Your task to perform on an android device: Add "dell xps" to the cart on walmart Image 0: 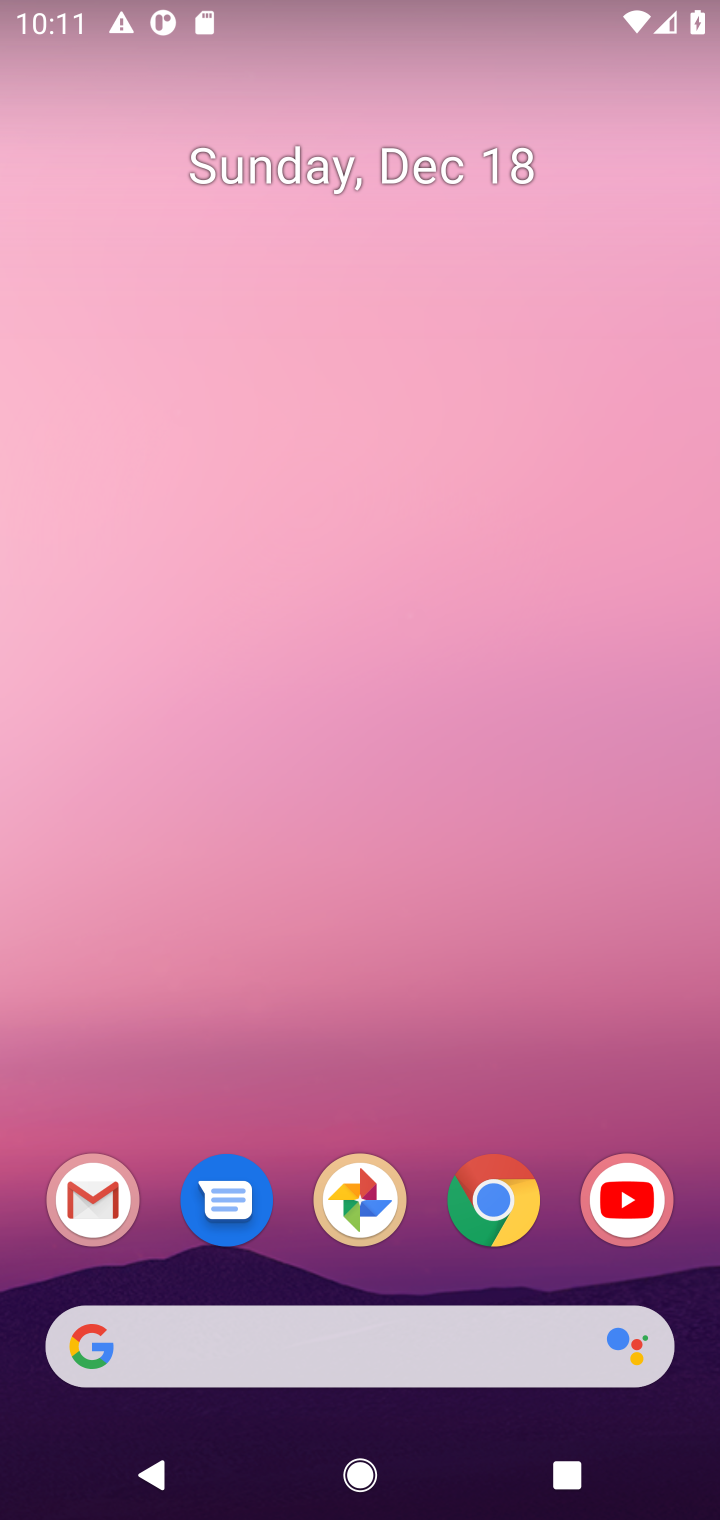
Step 0: click (490, 1205)
Your task to perform on an android device: Add "dell xps" to the cart on walmart Image 1: 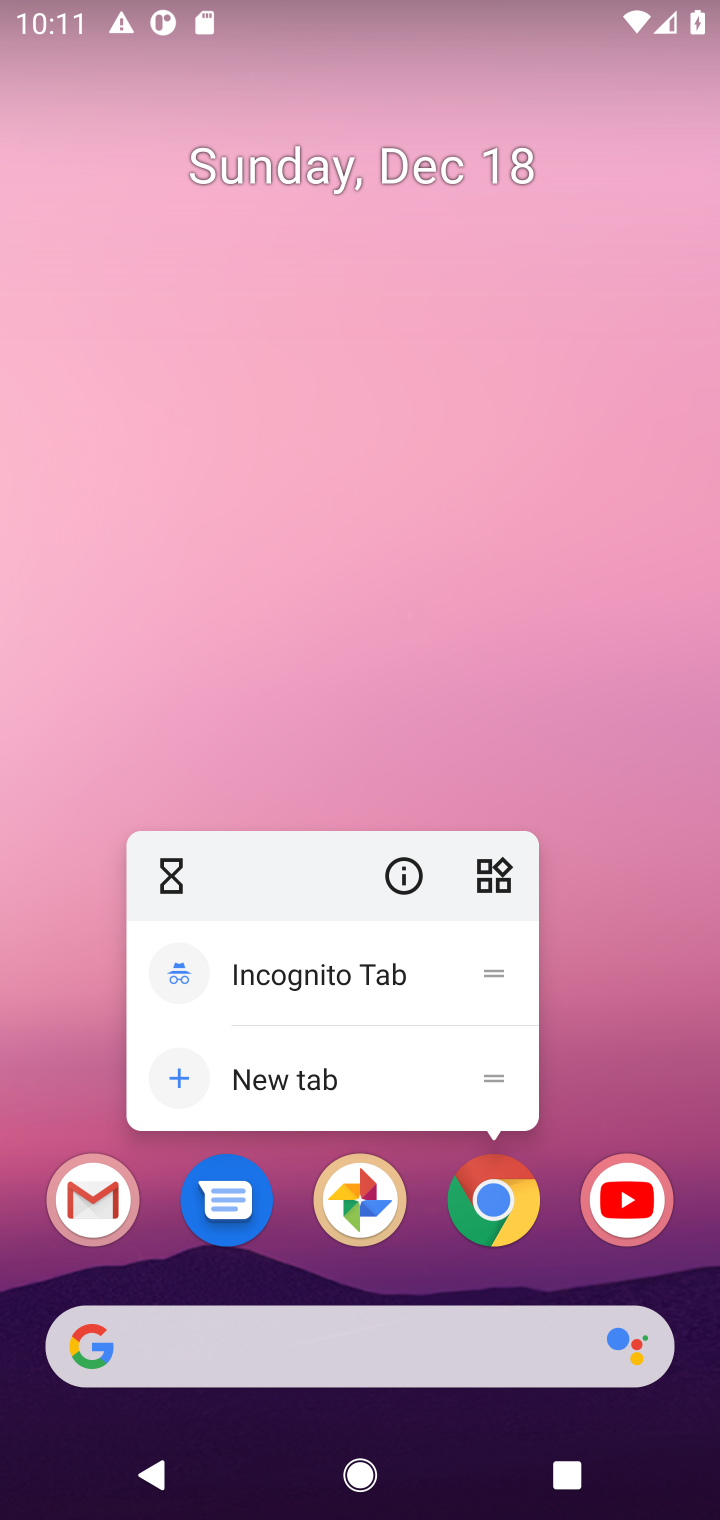
Step 1: click (490, 1205)
Your task to perform on an android device: Add "dell xps" to the cart on walmart Image 2: 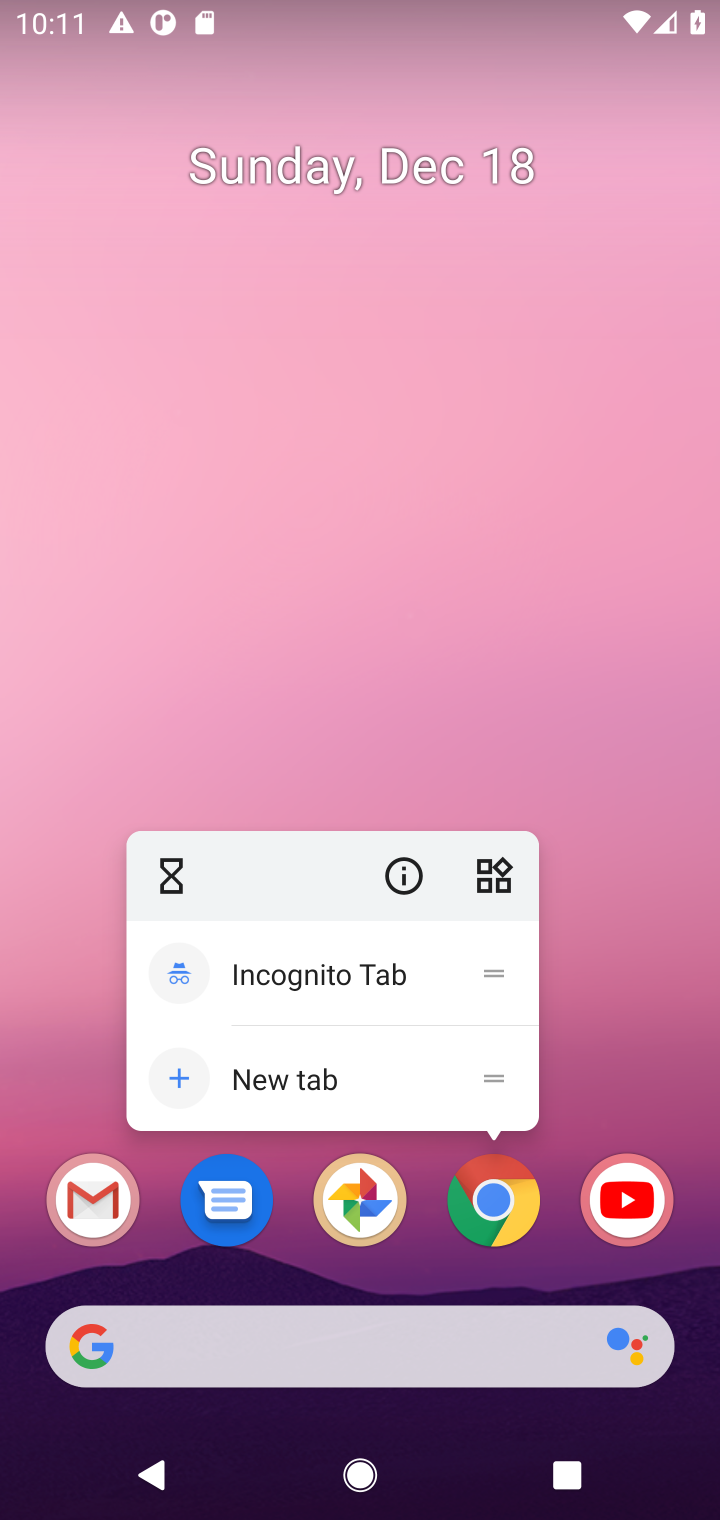
Step 2: click (490, 1205)
Your task to perform on an android device: Add "dell xps" to the cart on walmart Image 3: 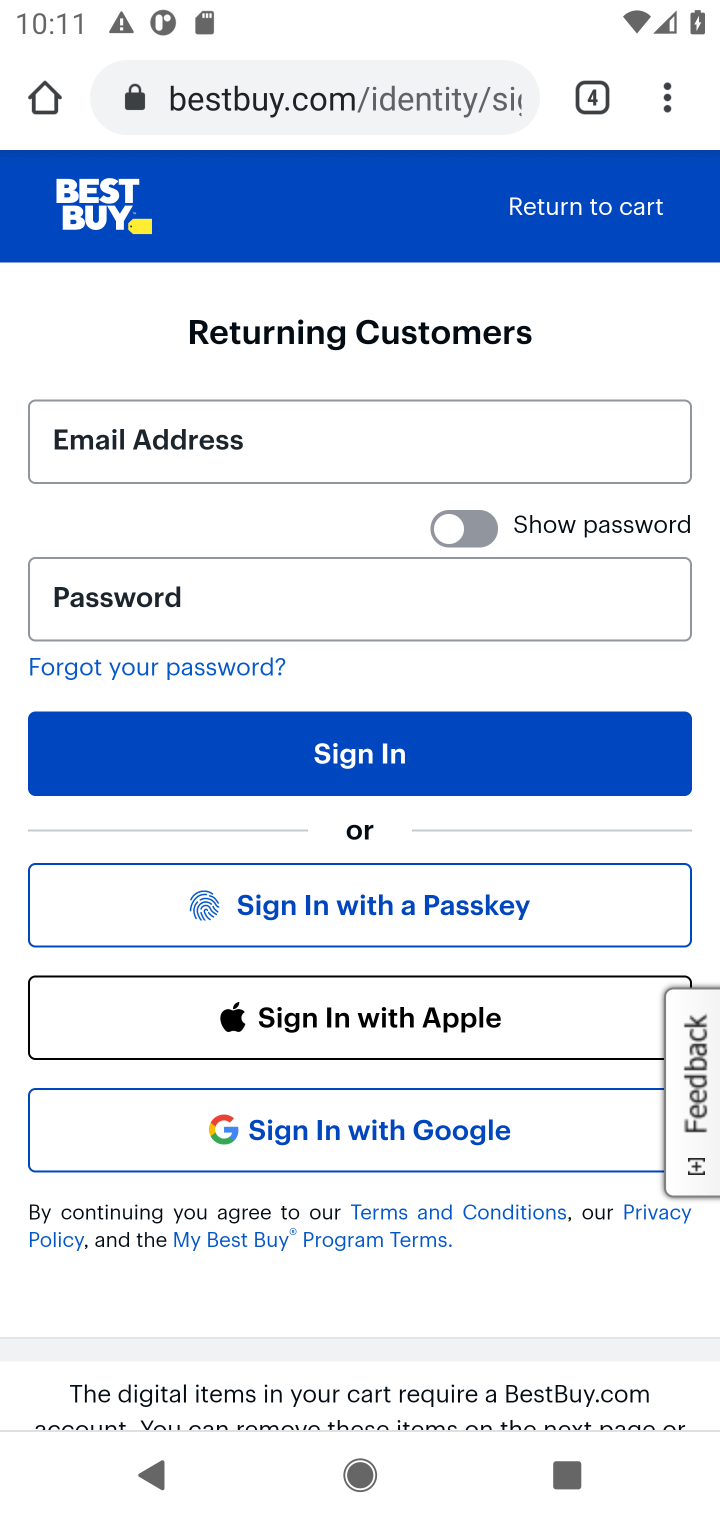
Step 3: click (298, 98)
Your task to perform on an android device: Add "dell xps" to the cart on walmart Image 4: 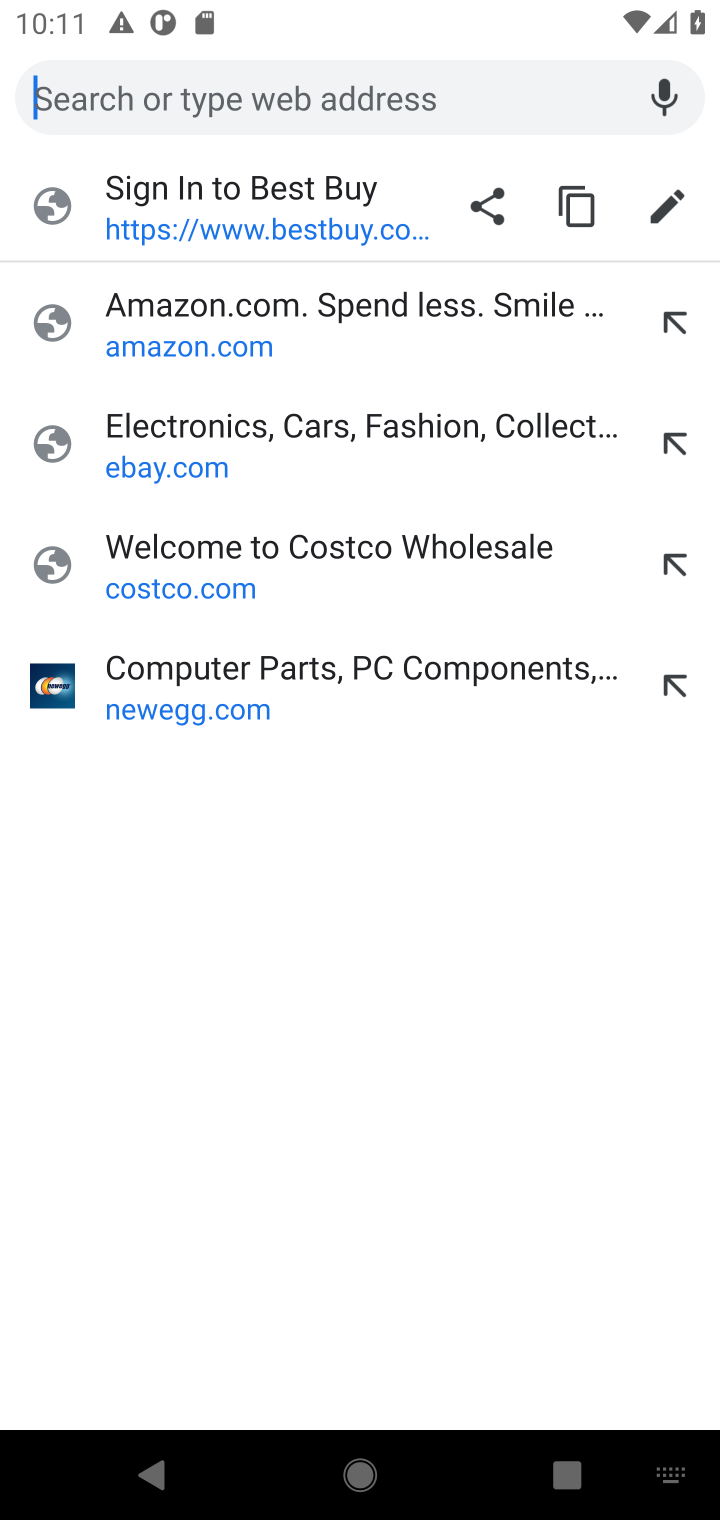
Step 4: type "walmart.com"
Your task to perform on an android device: Add "dell xps" to the cart on walmart Image 5: 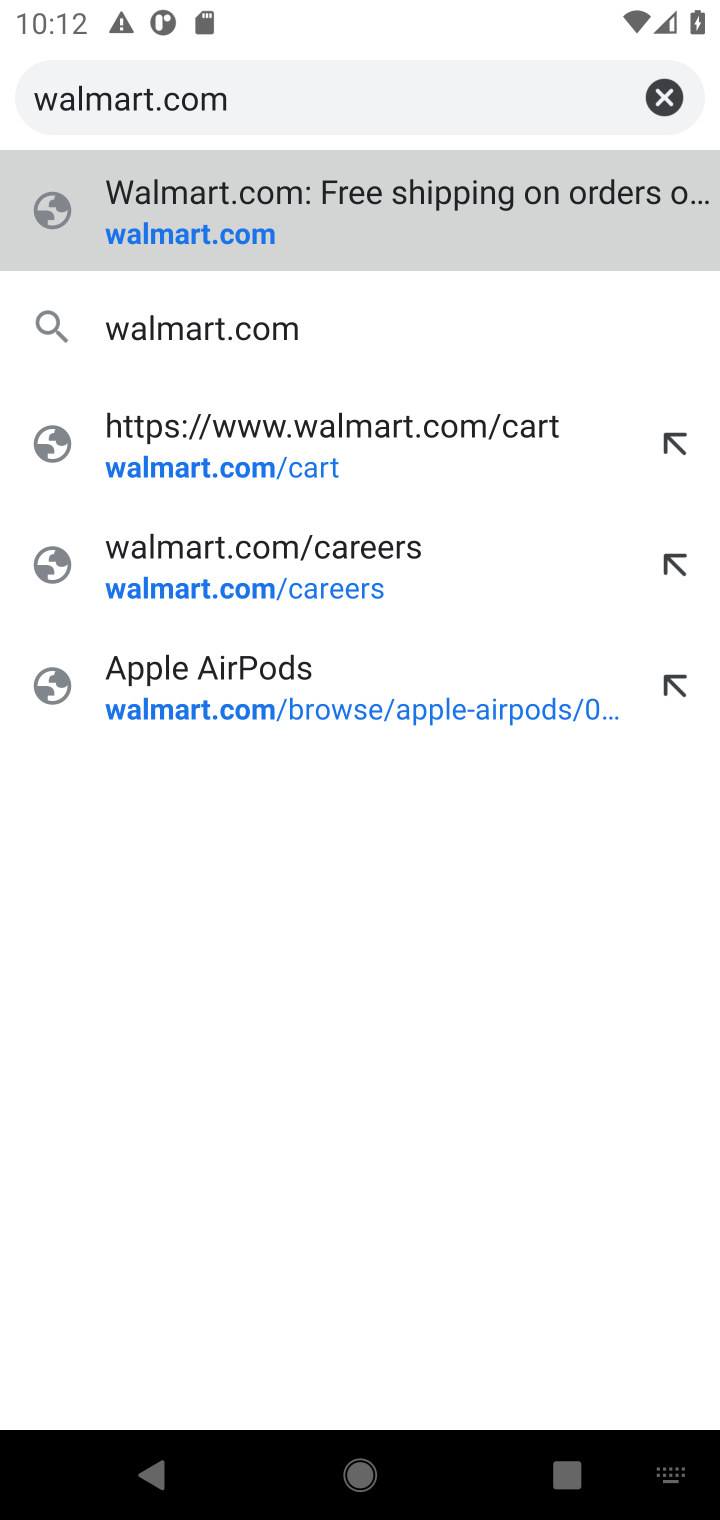
Step 5: click (167, 245)
Your task to perform on an android device: Add "dell xps" to the cart on walmart Image 6: 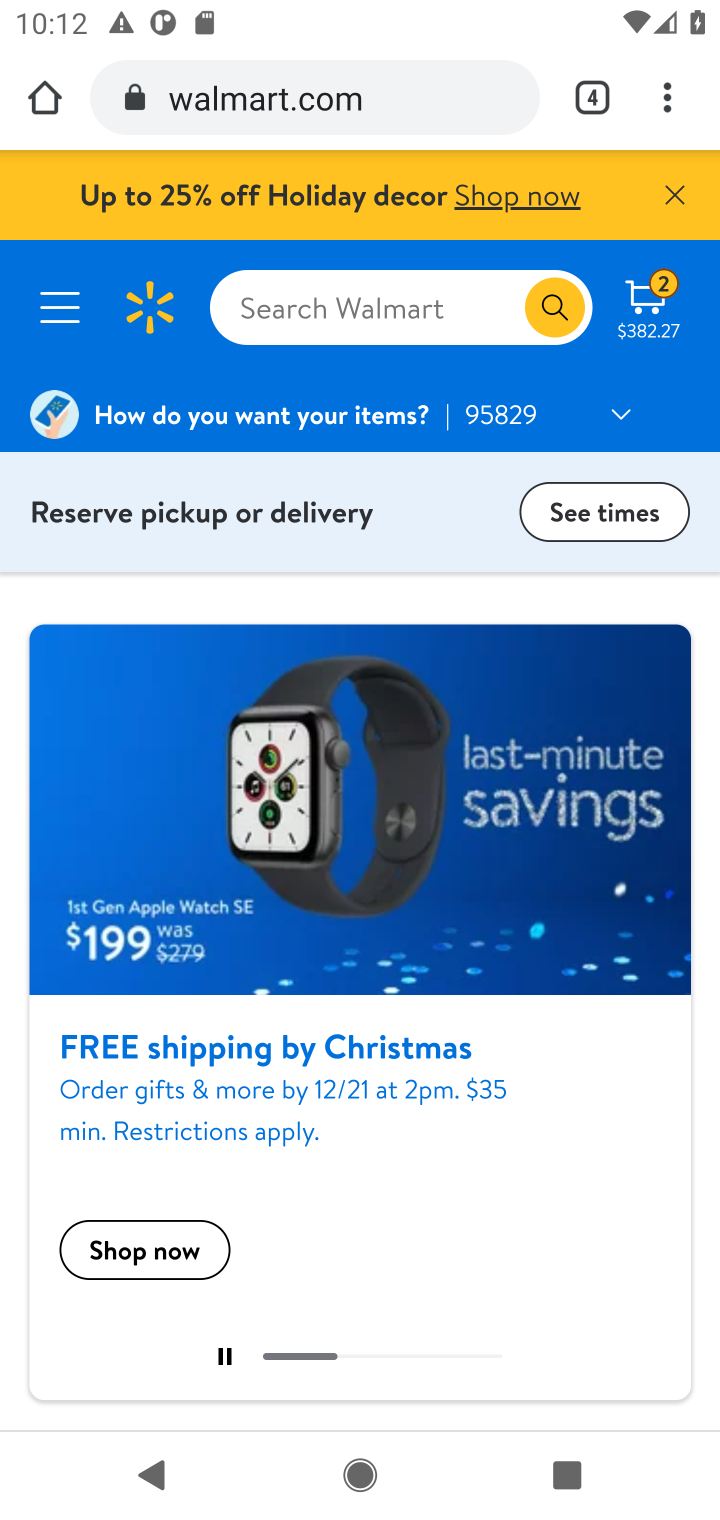
Step 6: click (292, 308)
Your task to perform on an android device: Add "dell xps" to the cart on walmart Image 7: 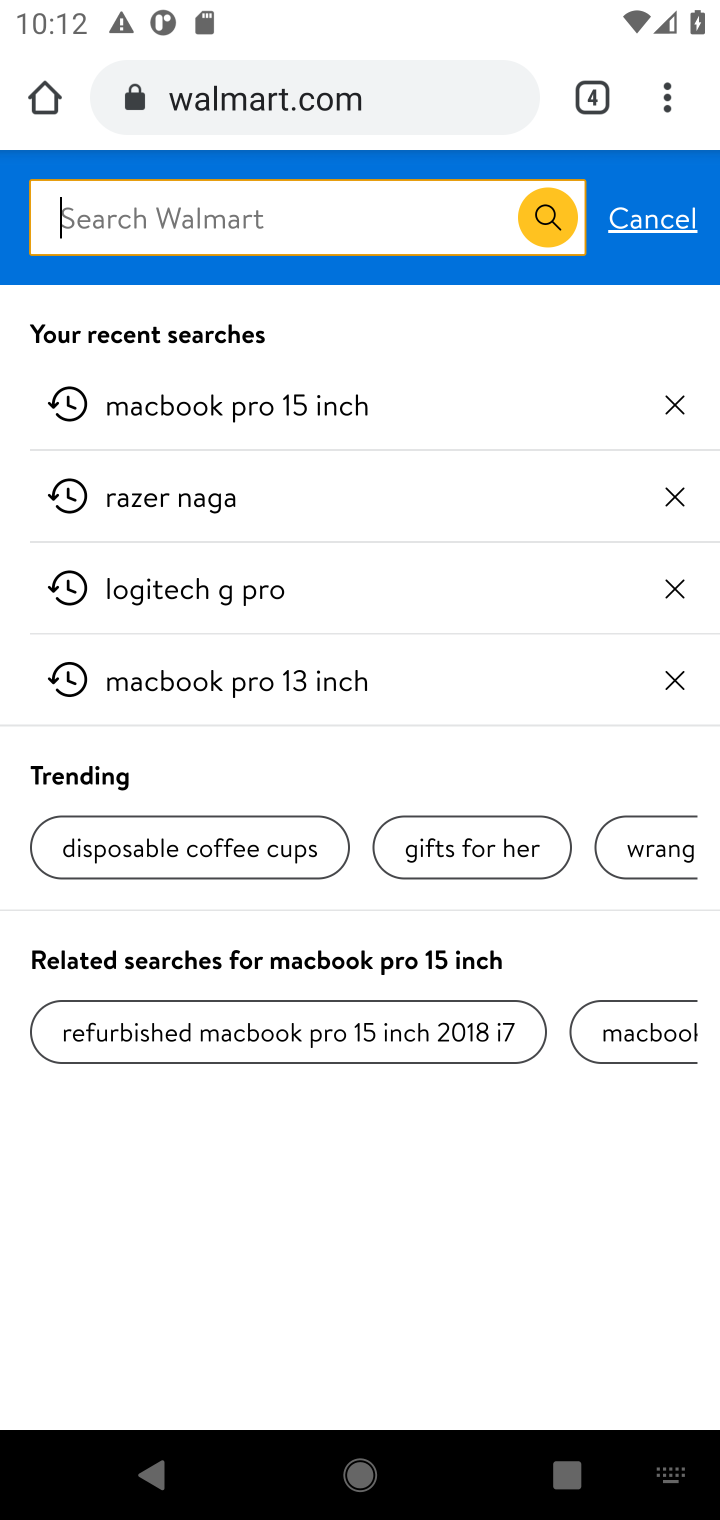
Step 7: type "dell xps"
Your task to perform on an android device: Add "dell xps" to the cart on walmart Image 8: 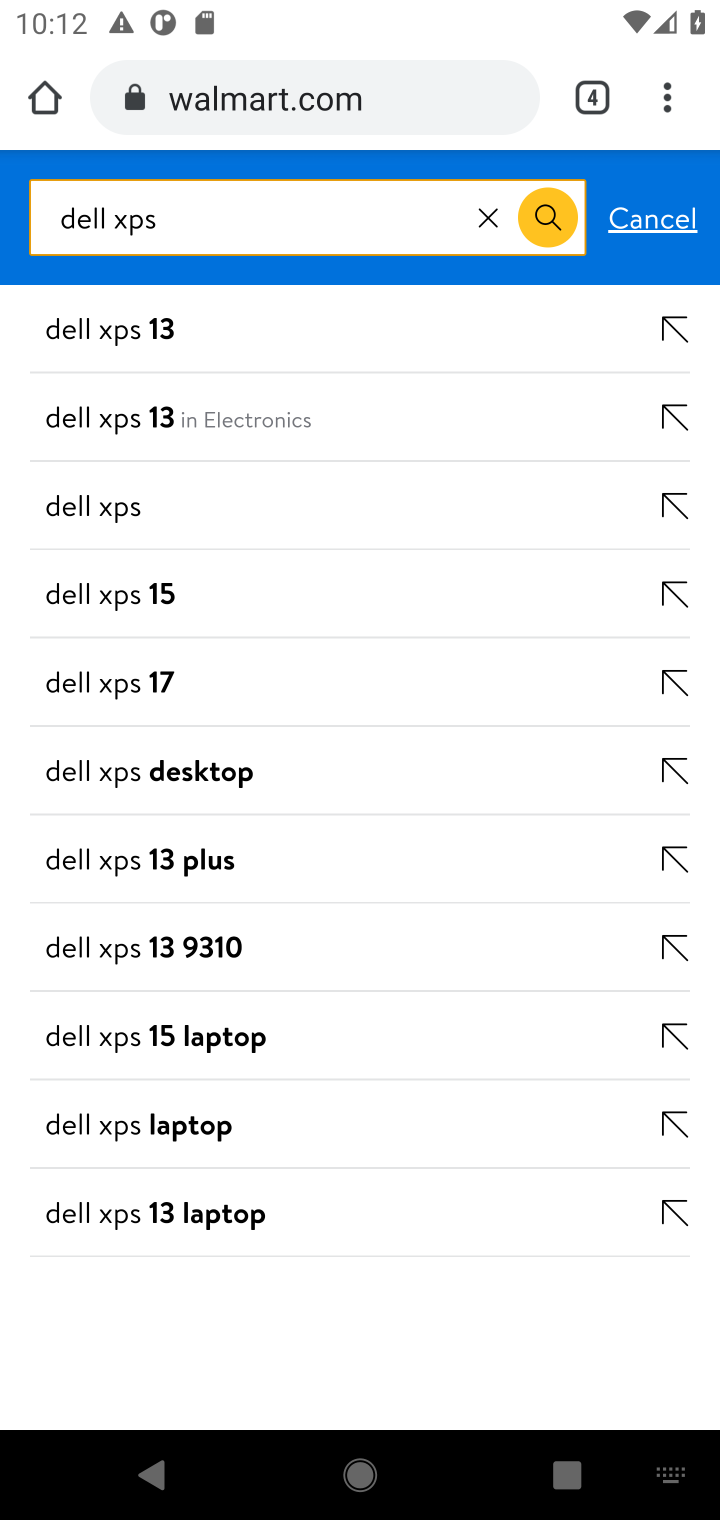
Step 8: click (115, 491)
Your task to perform on an android device: Add "dell xps" to the cart on walmart Image 9: 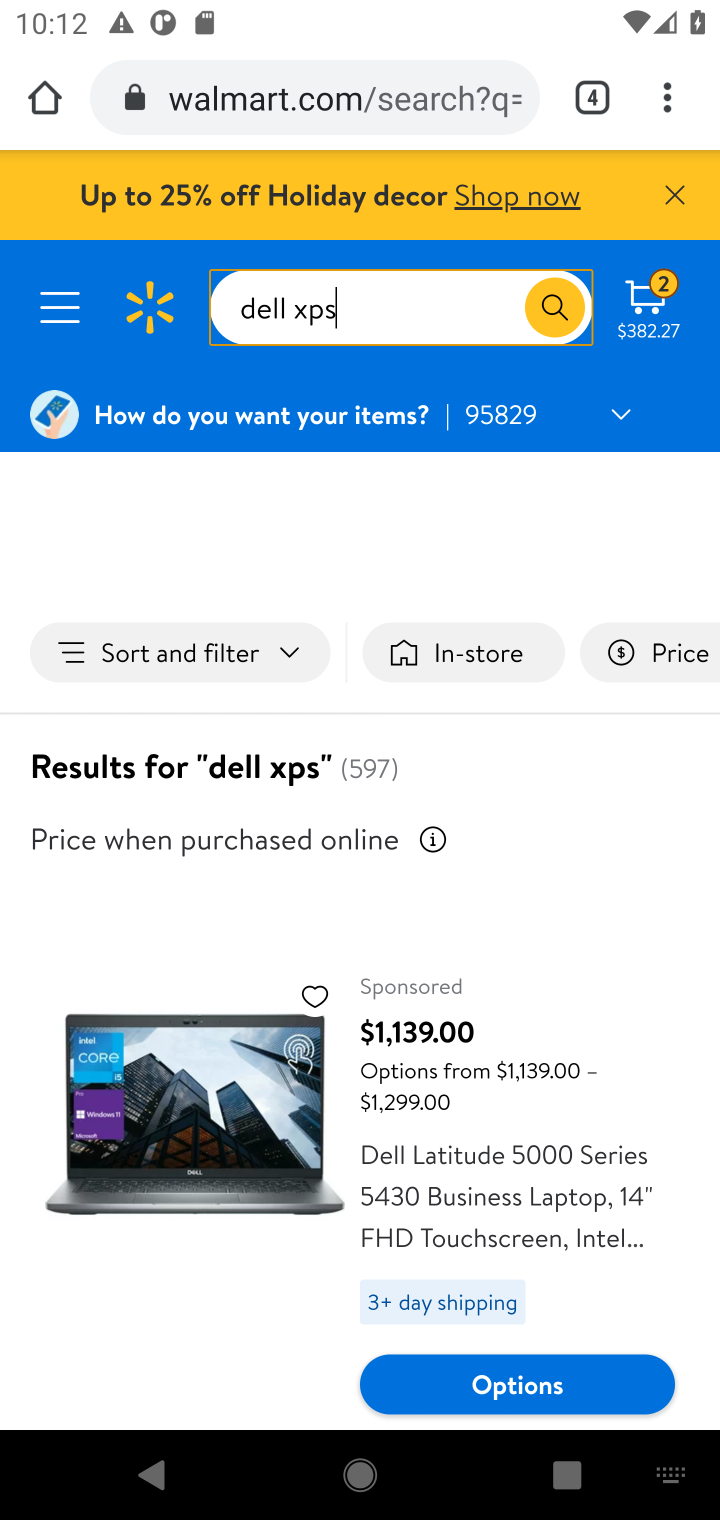
Step 9: drag from (483, 969) to (508, 598)
Your task to perform on an android device: Add "dell xps" to the cart on walmart Image 10: 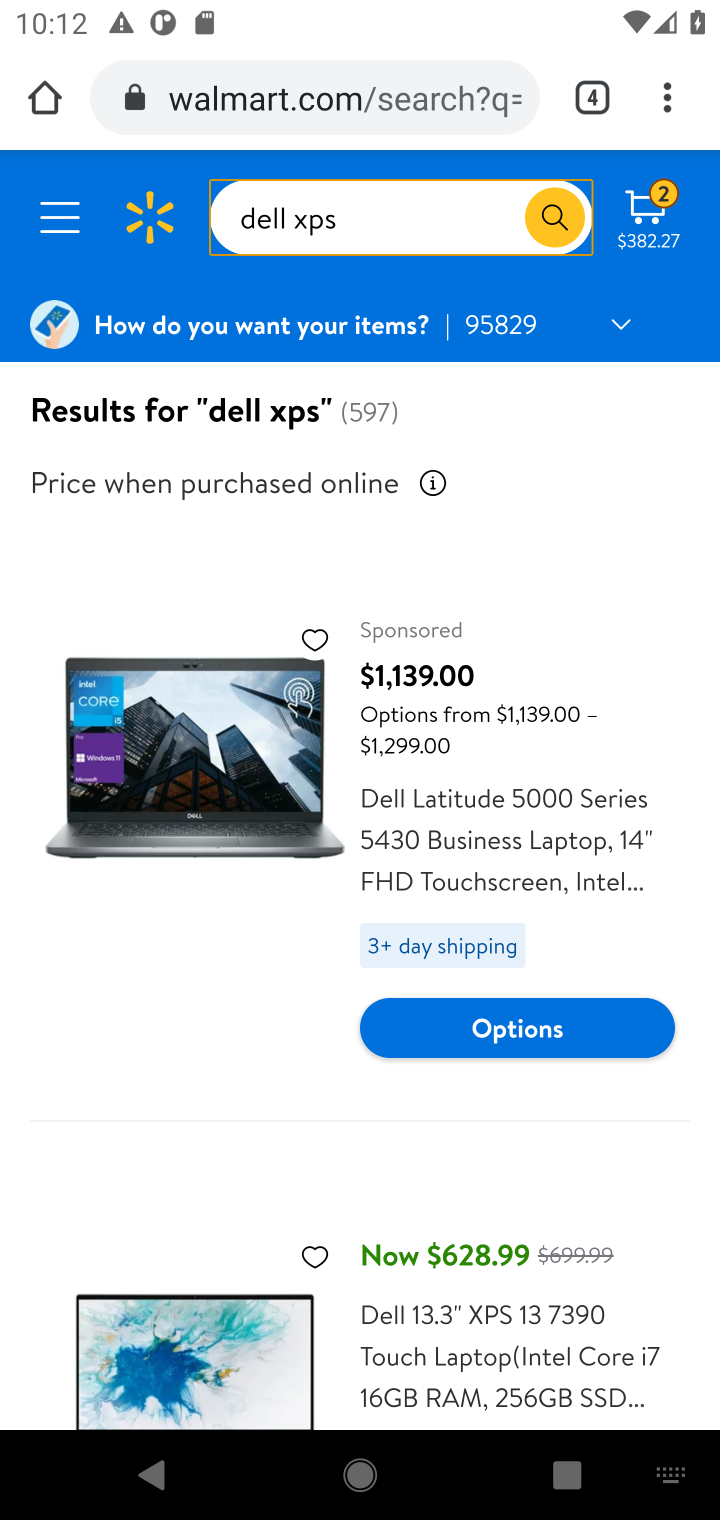
Step 10: drag from (335, 1083) to (359, 335)
Your task to perform on an android device: Add "dell xps" to the cart on walmart Image 11: 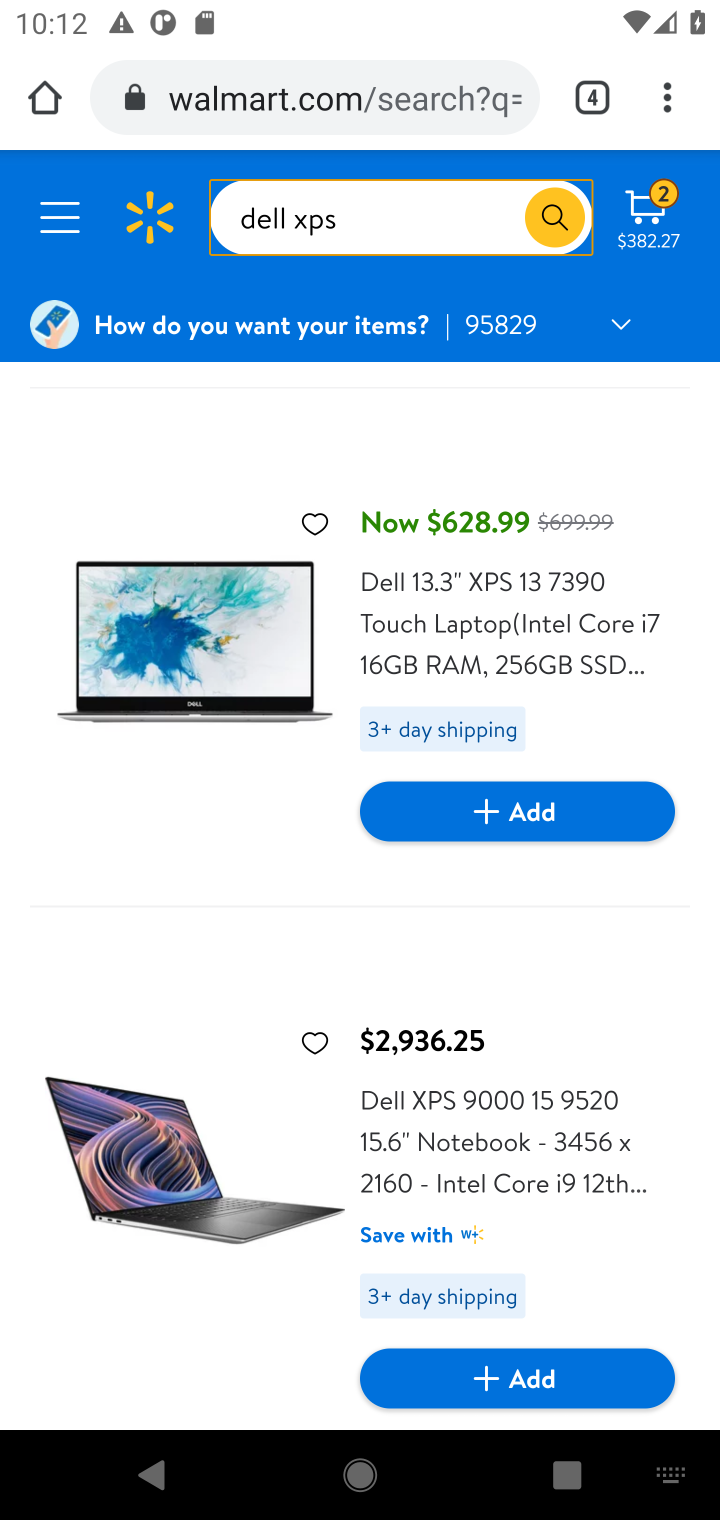
Step 11: click (526, 808)
Your task to perform on an android device: Add "dell xps" to the cart on walmart Image 12: 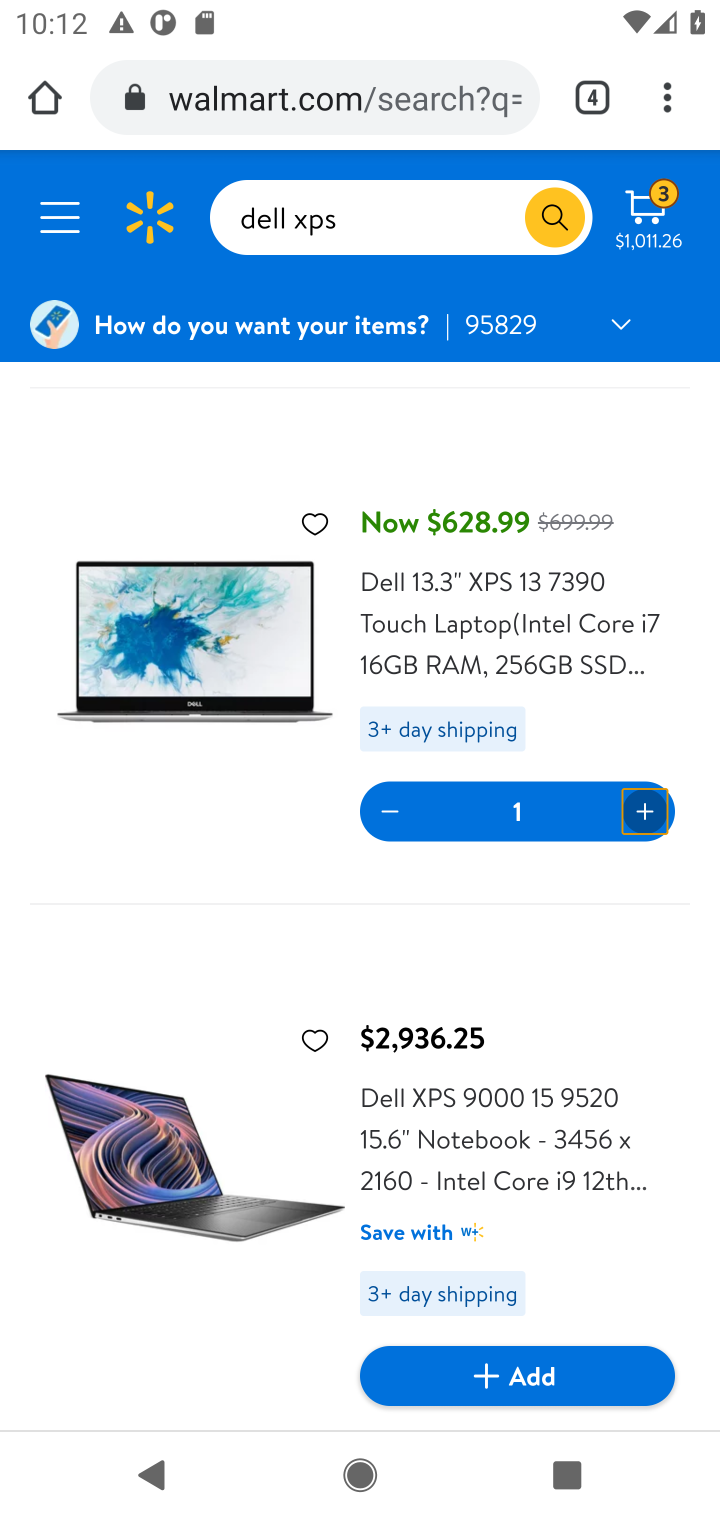
Step 12: task complete